Your task to perform on an android device: Open Yahoo.com Image 0: 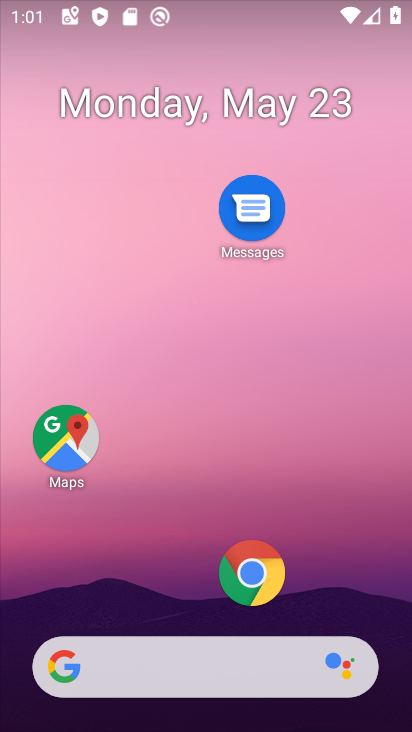
Step 0: drag from (242, 655) to (318, 136)
Your task to perform on an android device: Open Yahoo.com Image 1: 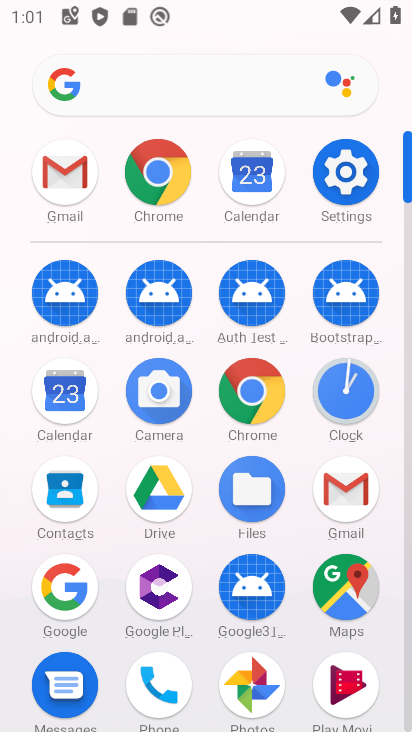
Step 1: click (264, 403)
Your task to perform on an android device: Open Yahoo.com Image 2: 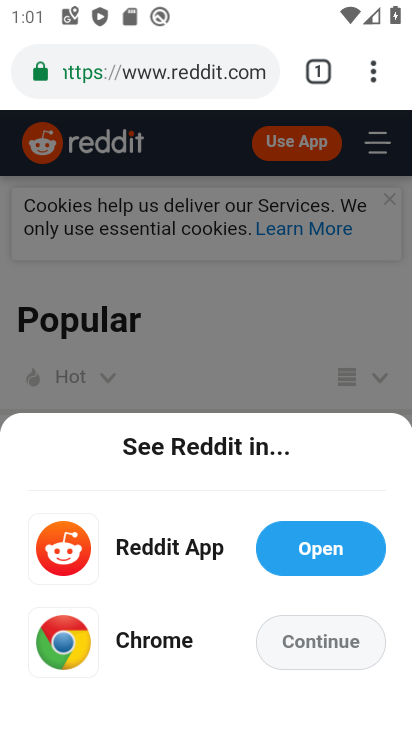
Step 2: click (254, 72)
Your task to perform on an android device: Open Yahoo.com Image 3: 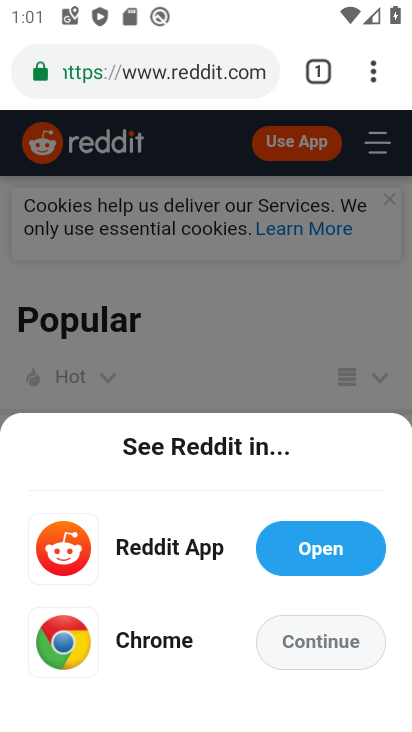
Step 3: click (254, 72)
Your task to perform on an android device: Open Yahoo.com Image 4: 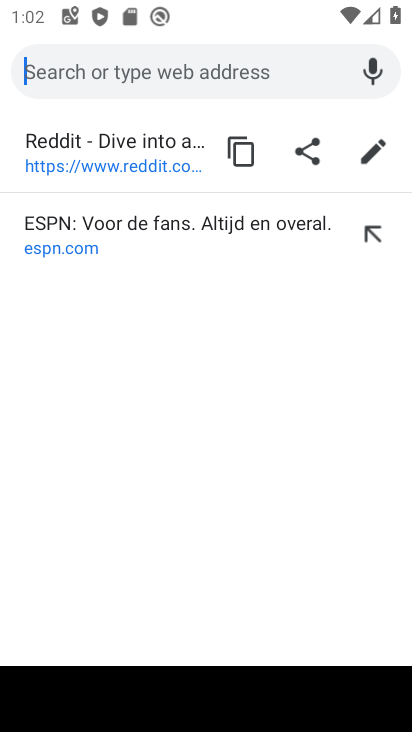
Step 4: type "yahoo.com"
Your task to perform on an android device: Open Yahoo.com Image 5: 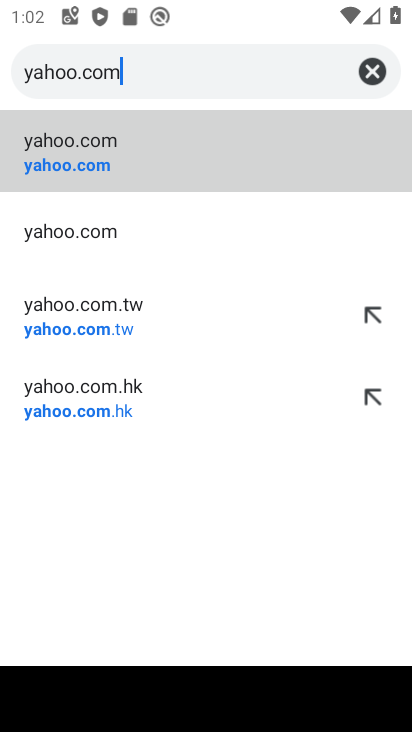
Step 5: click (81, 175)
Your task to perform on an android device: Open Yahoo.com Image 6: 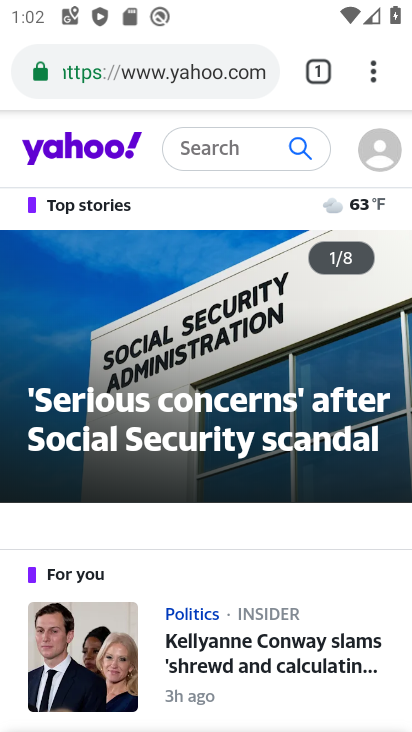
Step 6: task complete